Your task to perform on an android device: allow cookies in the chrome app Image 0: 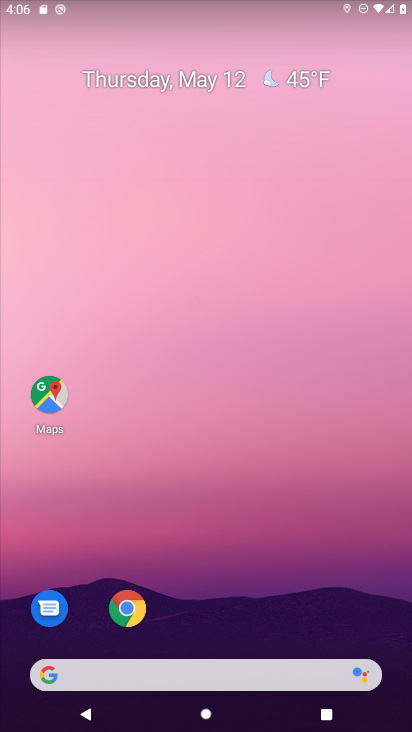
Step 0: click (143, 611)
Your task to perform on an android device: allow cookies in the chrome app Image 1: 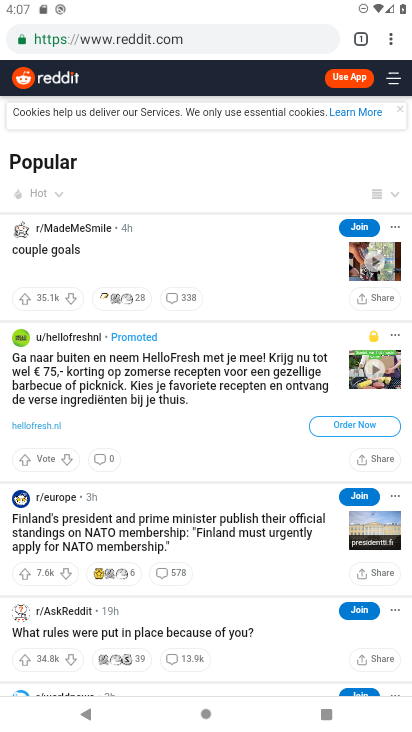
Step 1: click (384, 42)
Your task to perform on an android device: allow cookies in the chrome app Image 2: 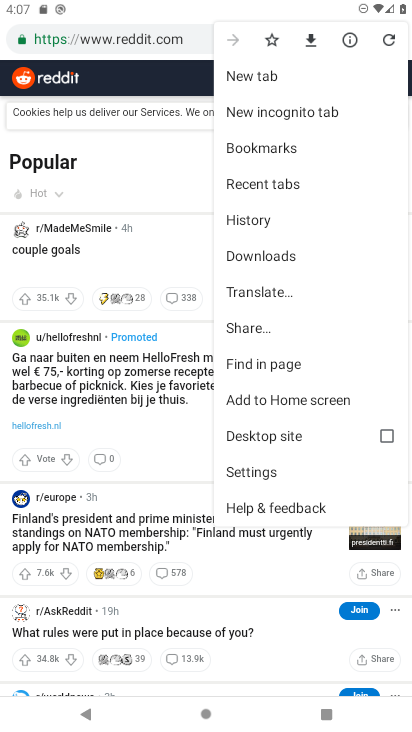
Step 2: click (293, 222)
Your task to perform on an android device: allow cookies in the chrome app Image 3: 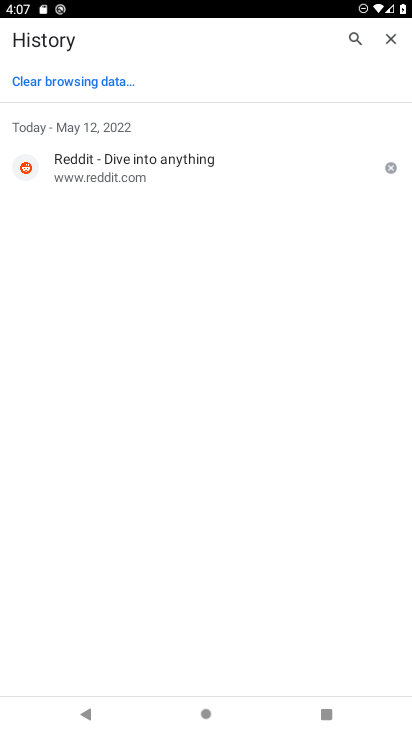
Step 3: click (391, 40)
Your task to perform on an android device: allow cookies in the chrome app Image 4: 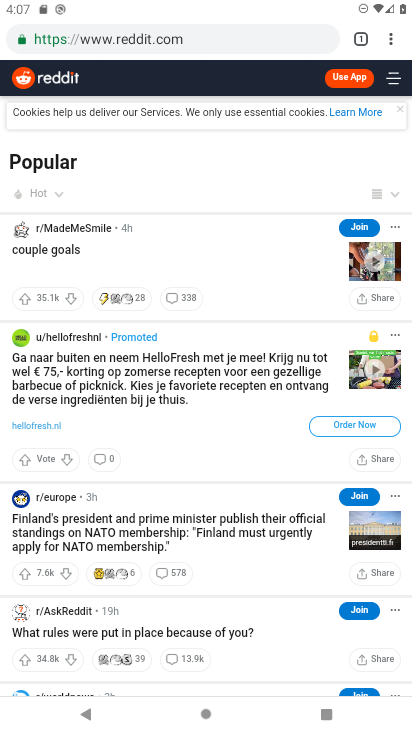
Step 4: click (398, 36)
Your task to perform on an android device: allow cookies in the chrome app Image 5: 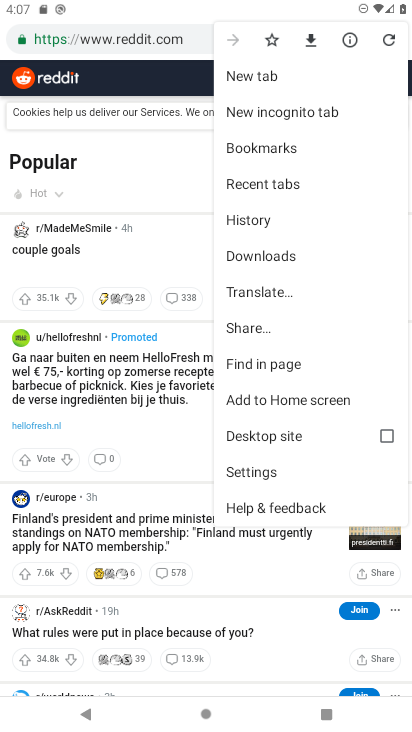
Step 5: click (266, 461)
Your task to perform on an android device: allow cookies in the chrome app Image 6: 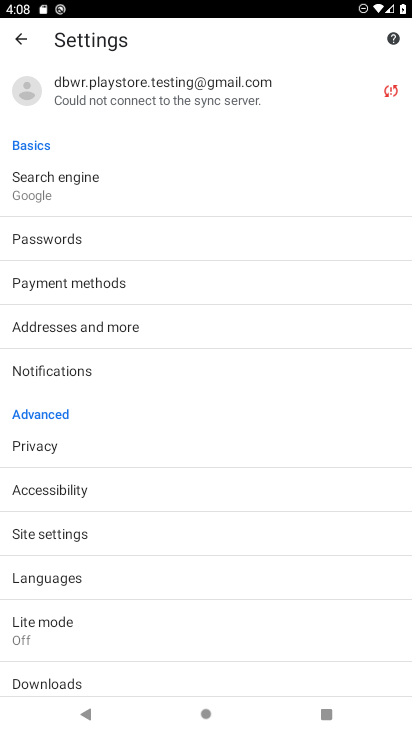
Step 6: click (170, 543)
Your task to perform on an android device: allow cookies in the chrome app Image 7: 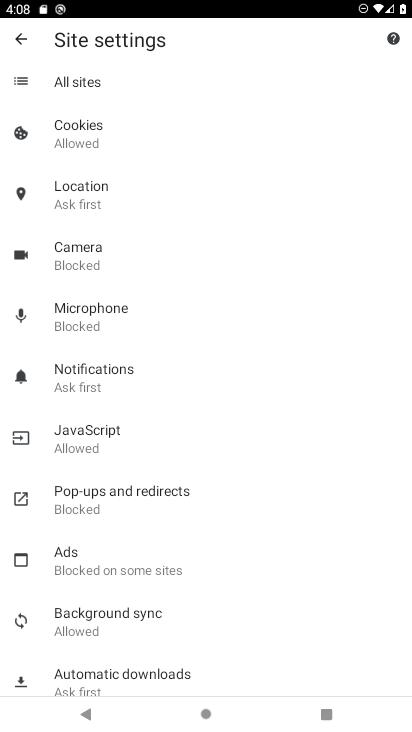
Step 7: click (52, 142)
Your task to perform on an android device: allow cookies in the chrome app Image 8: 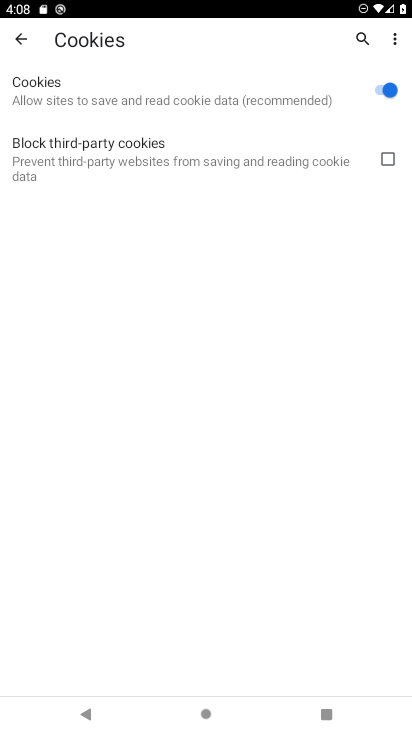
Step 8: task complete